Your task to perform on an android device: Open Google Chrome and click the shortcut for Amazon.com Image 0: 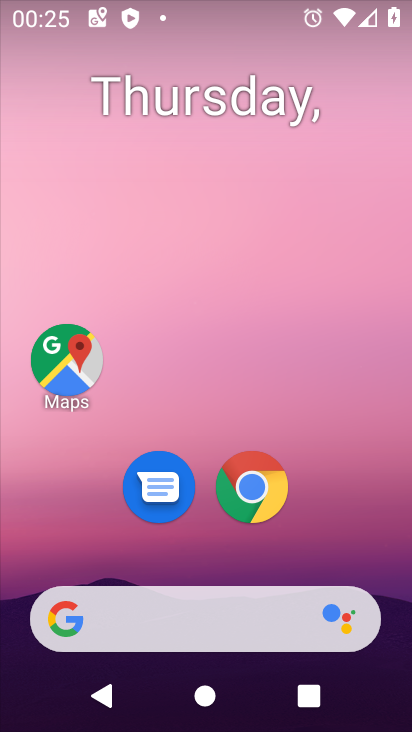
Step 0: click (258, 490)
Your task to perform on an android device: Open Google Chrome and click the shortcut for Amazon.com Image 1: 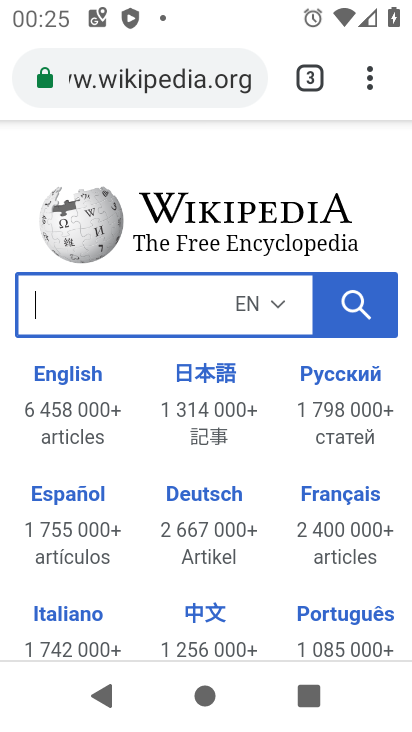
Step 1: click (368, 81)
Your task to perform on an android device: Open Google Chrome and click the shortcut for Amazon.com Image 2: 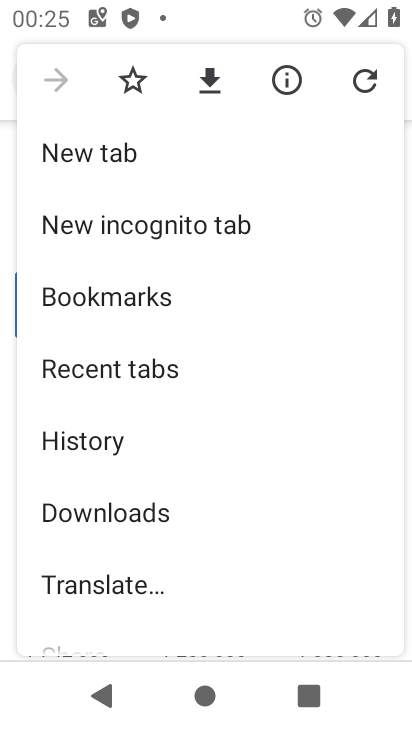
Step 2: click (83, 164)
Your task to perform on an android device: Open Google Chrome and click the shortcut for Amazon.com Image 3: 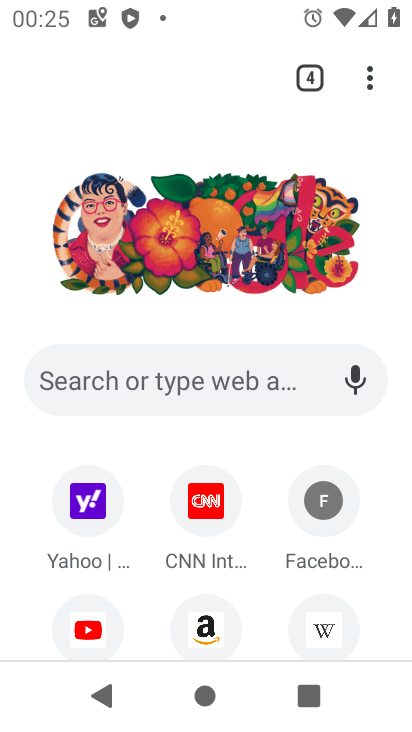
Step 3: drag from (368, 584) to (359, 427)
Your task to perform on an android device: Open Google Chrome and click the shortcut for Amazon.com Image 4: 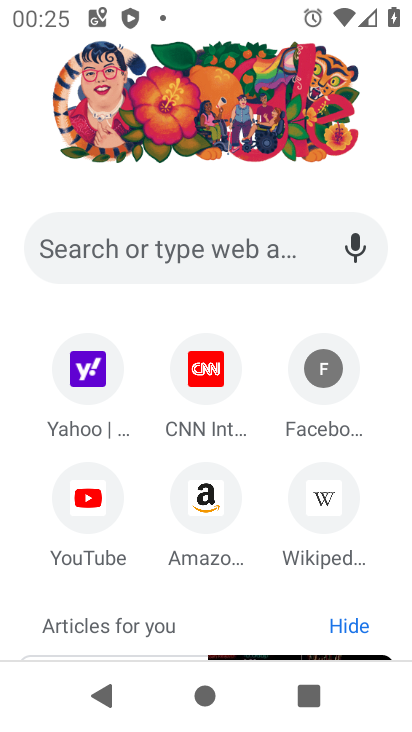
Step 4: click (210, 501)
Your task to perform on an android device: Open Google Chrome and click the shortcut for Amazon.com Image 5: 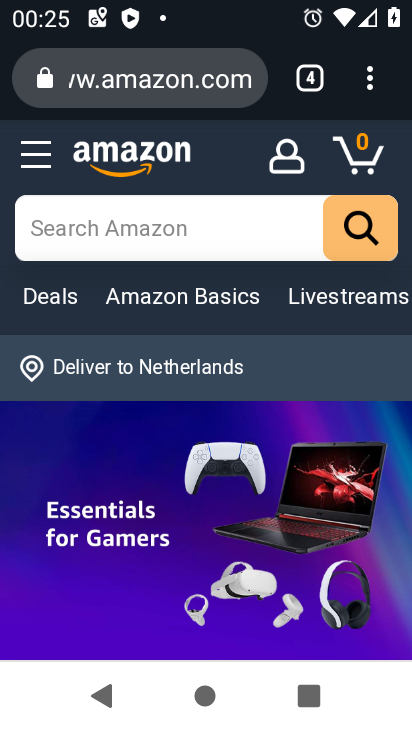
Step 5: task complete